Your task to perform on an android device: Show me popular games on the Play Store Image 0: 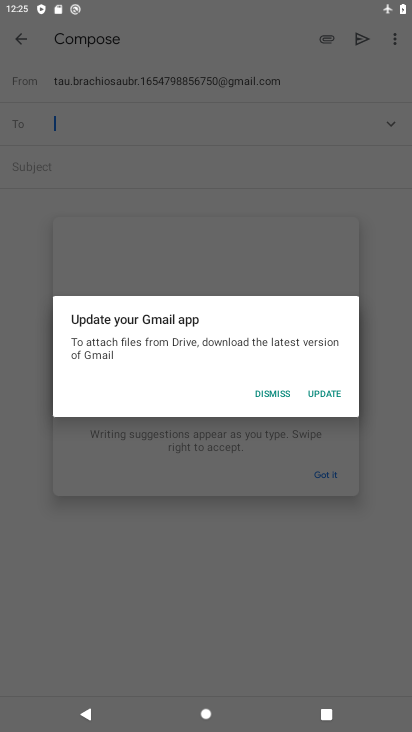
Step 0: press home button
Your task to perform on an android device: Show me popular games on the Play Store Image 1: 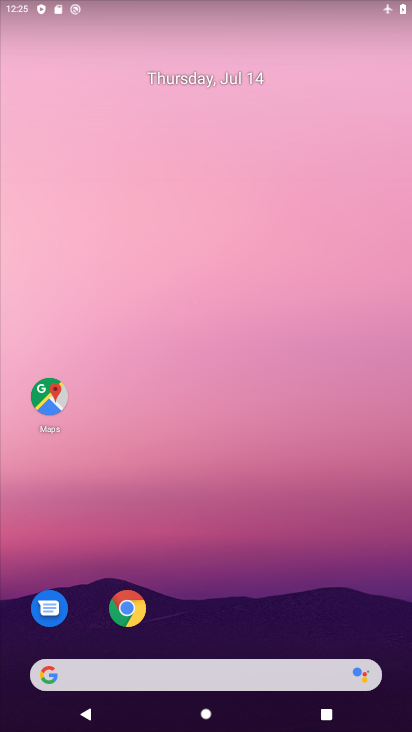
Step 1: drag from (350, 605) to (331, 100)
Your task to perform on an android device: Show me popular games on the Play Store Image 2: 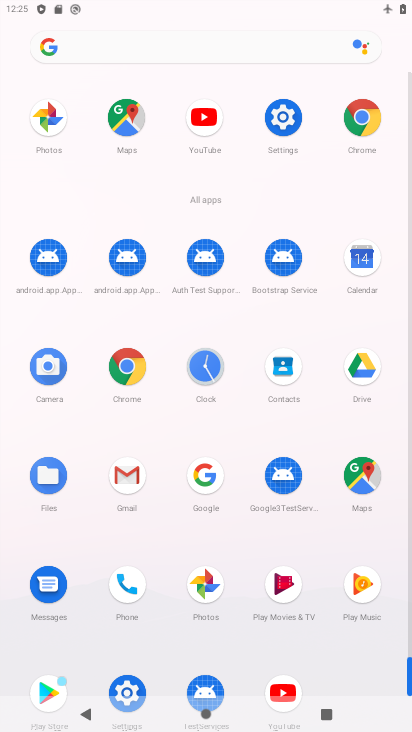
Step 2: drag from (333, 660) to (316, 435)
Your task to perform on an android device: Show me popular games on the Play Store Image 3: 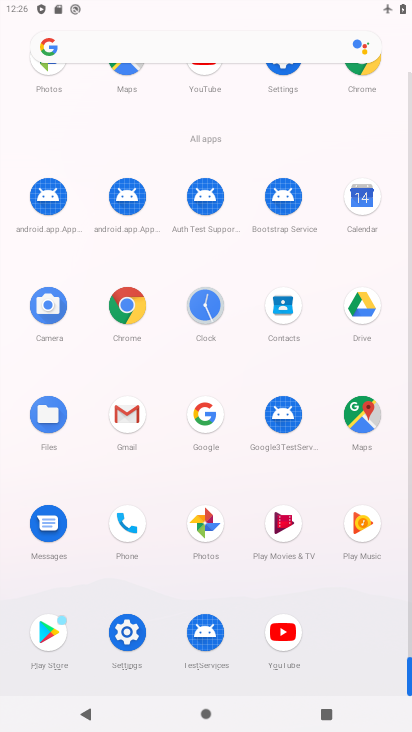
Step 3: click (49, 637)
Your task to perform on an android device: Show me popular games on the Play Store Image 4: 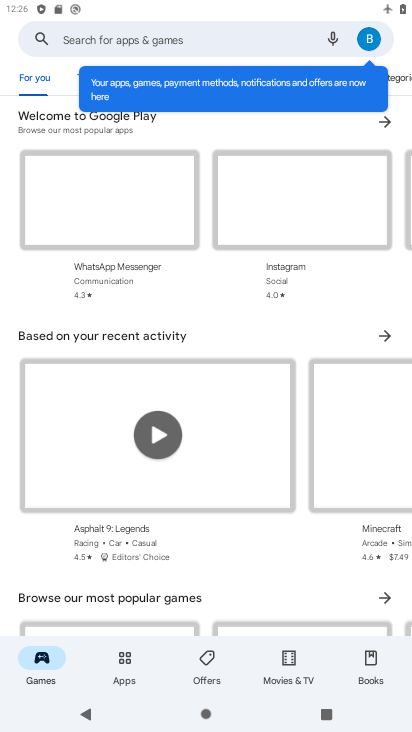
Step 4: task complete